Your task to perform on an android device: allow cookies in the chrome app Image 0: 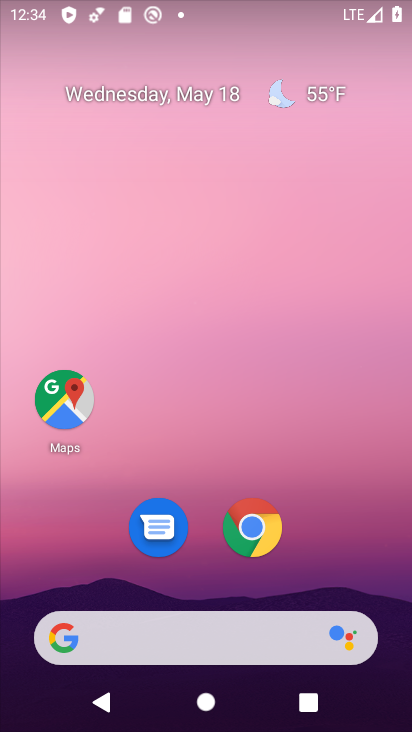
Step 0: click (259, 523)
Your task to perform on an android device: allow cookies in the chrome app Image 1: 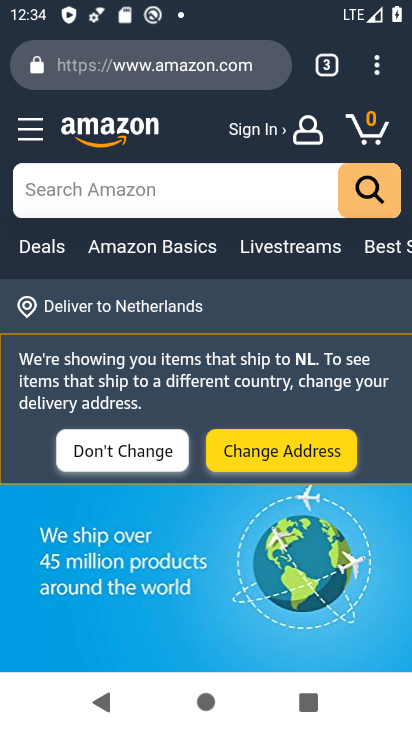
Step 1: click (374, 65)
Your task to perform on an android device: allow cookies in the chrome app Image 2: 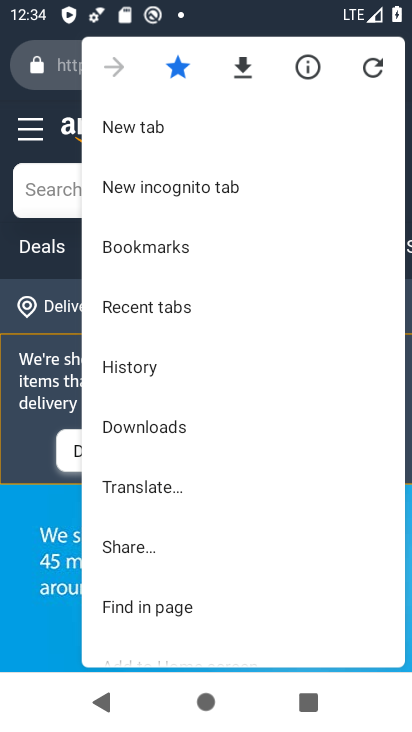
Step 2: drag from (228, 469) to (210, 135)
Your task to perform on an android device: allow cookies in the chrome app Image 3: 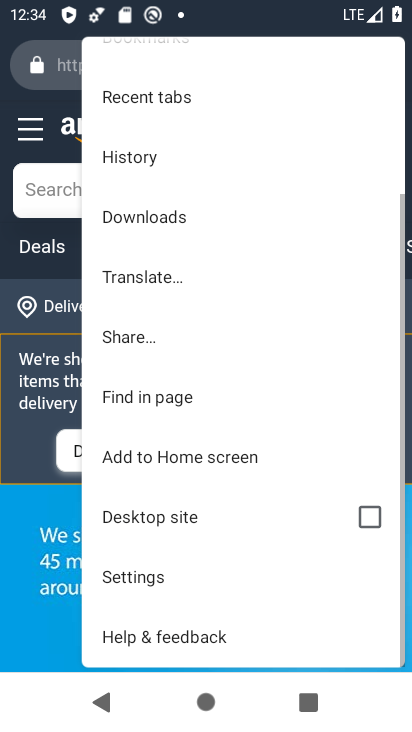
Step 3: click (159, 566)
Your task to perform on an android device: allow cookies in the chrome app Image 4: 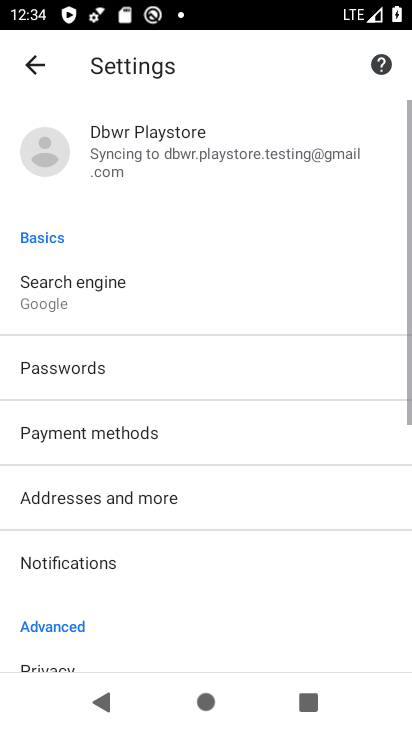
Step 4: drag from (243, 573) to (204, 249)
Your task to perform on an android device: allow cookies in the chrome app Image 5: 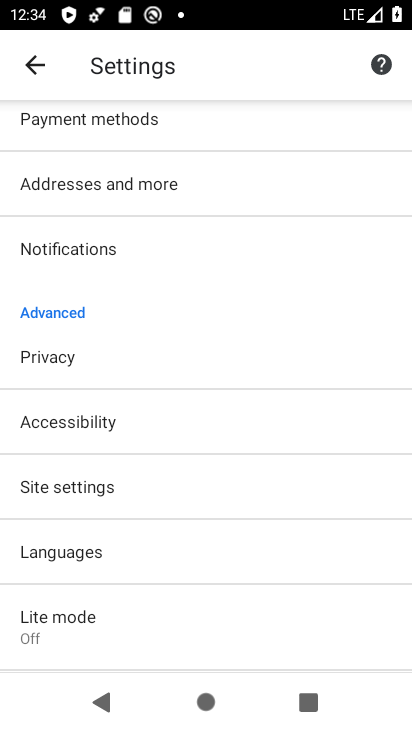
Step 5: click (176, 485)
Your task to perform on an android device: allow cookies in the chrome app Image 6: 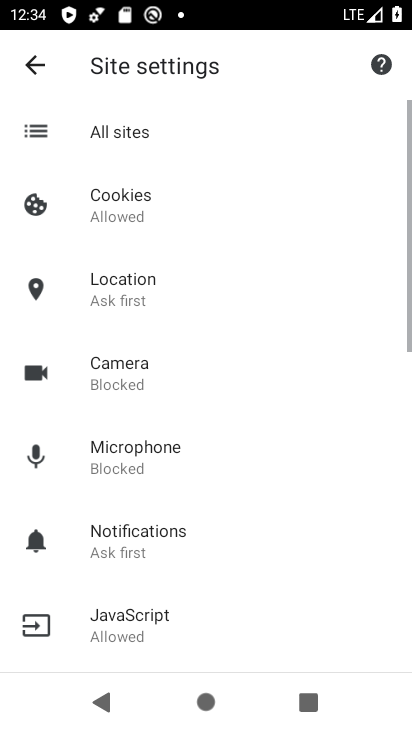
Step 6: click (141, 203)
Your task to perform on an android device: allow cookies in the chrome app Image 7: 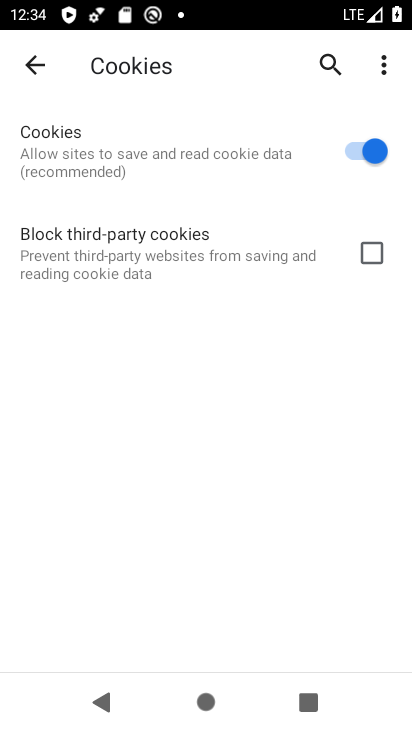
Step 7: task complete